Your task to perform on an android device: turn off wifi Image 0: 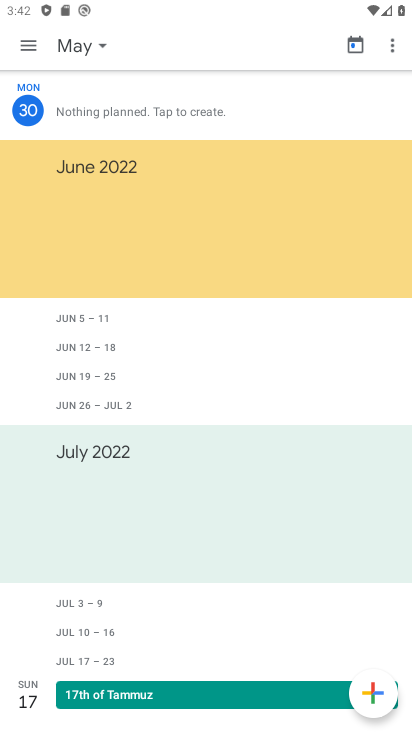
Step 0: press home button
Your task to perform on an android device: turn off wifi Image 1: 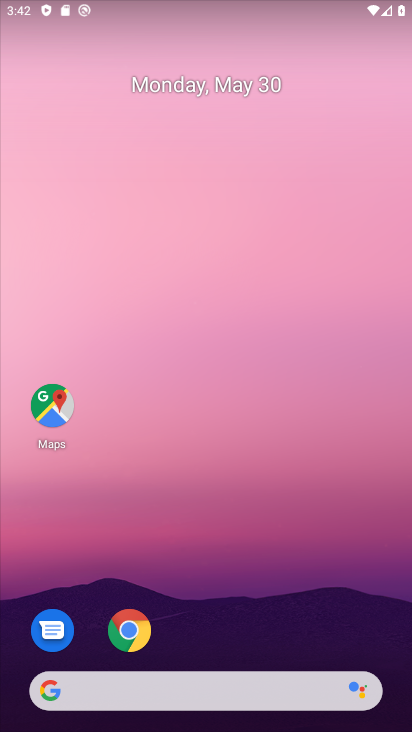
Step 1: drag from (217, 677) to (213, 96)
Your task to perform on an android device: turn off wifi Image 2: 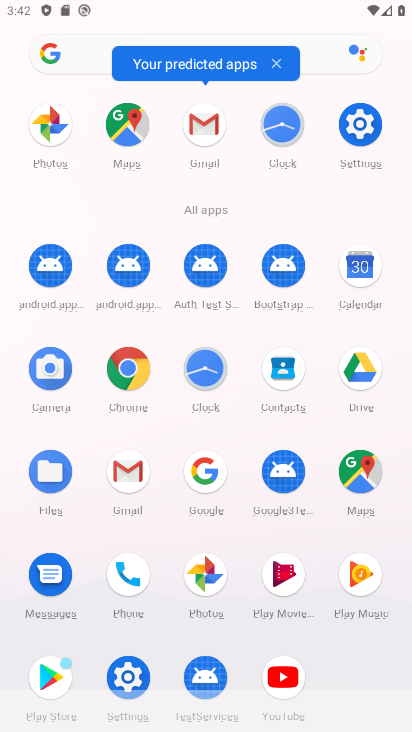
Step 2: click (369, 124)
Your task to perform on an android device: turn off wifi Image 3: 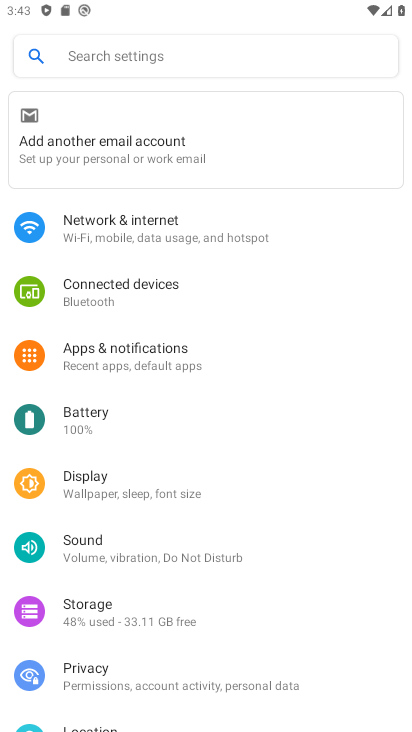
Step 3: click (161, 238)
Your task to perform on an android device: turn off wifi Image 4: 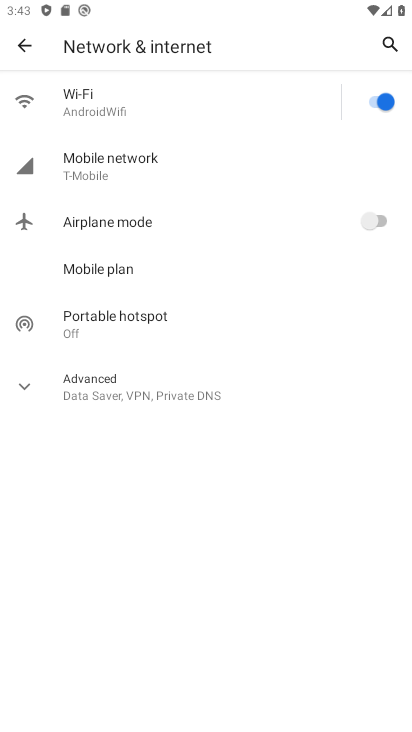
Step 4: click (373, 119)
Your task to perform on an android device: turn off wifi Image 5: 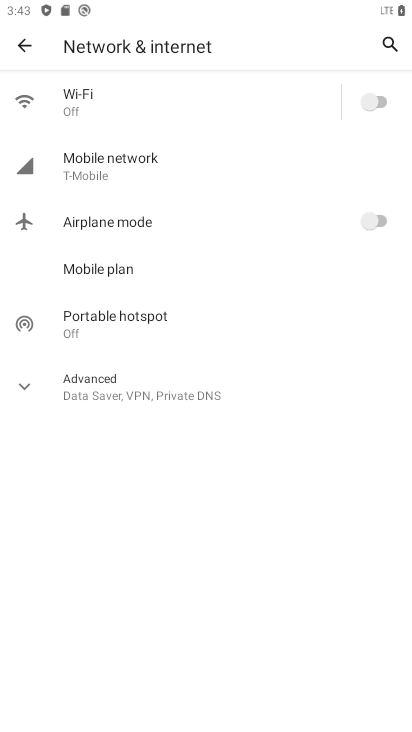
Step 5: task complete